Your task to perform on an android device: Open calendar and show me the third week of next month Image 0: 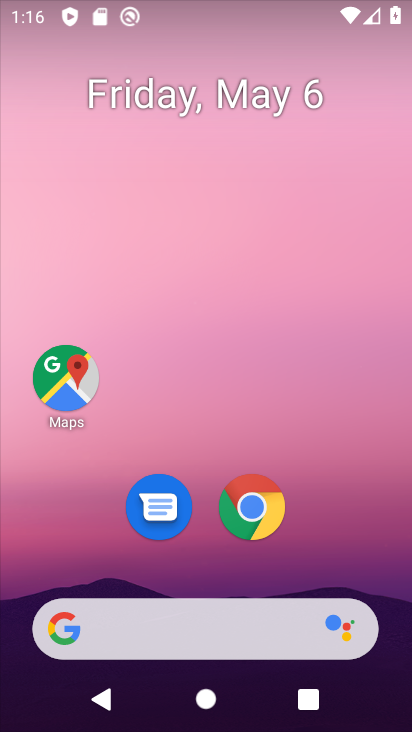
Step 0: drag from (102, 593) to (291, 39)
Your task to perform on an android device: Open calendar and show me the third week of next month Image 1: 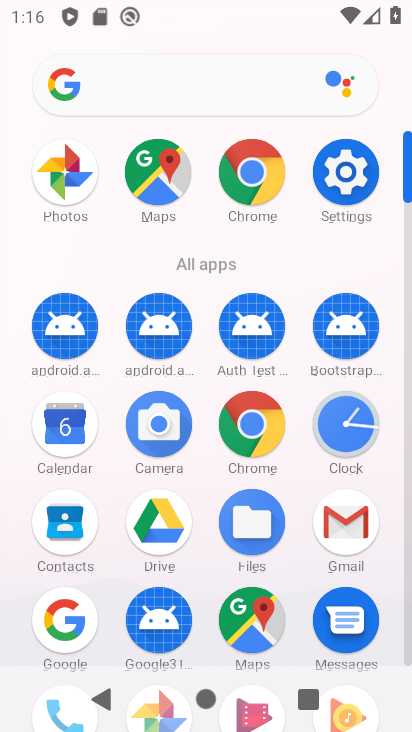
Step 1: click (57, 442)
Your task to perform on an android device: Open calendar and show me the third week of next month Image 2: 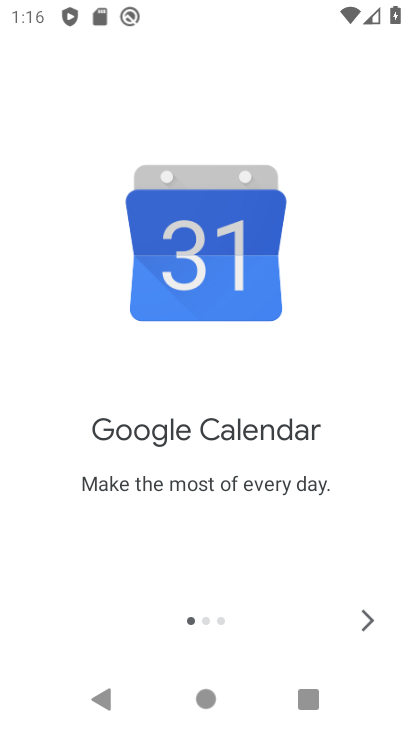
Step 2: click (394, 629)
Your task to perform on an android device: Open calendar and show me the third week of next month Image 3: 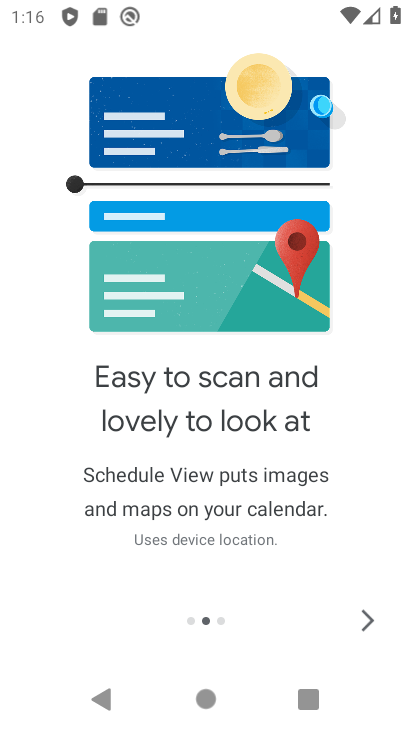
Step 3: click (388, 628)
Your task to perform on an android device: Open calendar and show me the third week of next month Image 4: 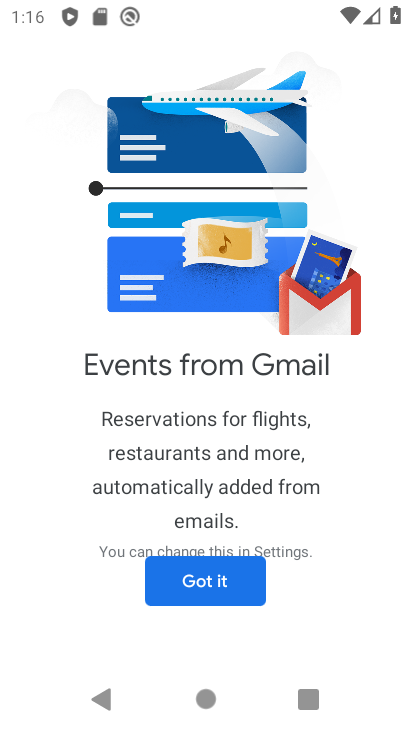
Step 4: drag from (372, 673) to (388, 628)
Your task to perform on an android device: Open calendar and show me the third week of next month Image 5: 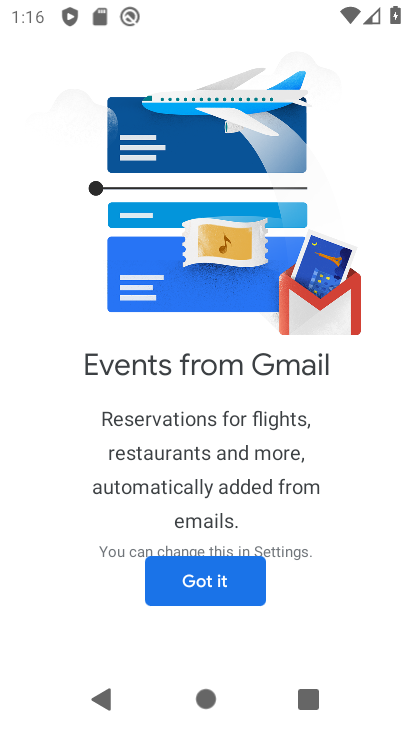
Step 5: click (237, 582)
Your task to perform on an android device: Open calendar and show me the third week of next month Image 6: 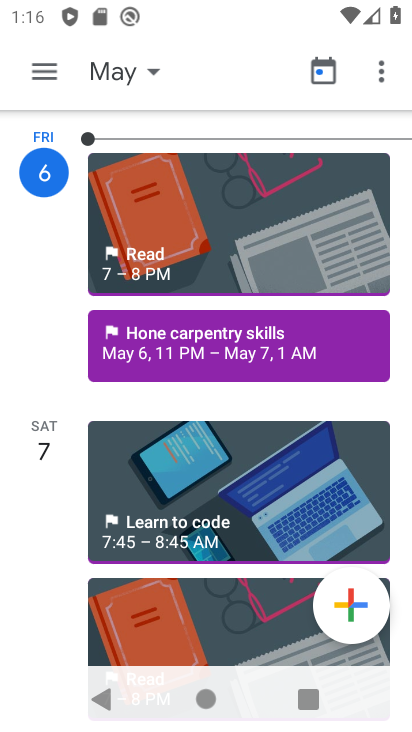
Step 6: click (128, 81)
Your task to perform on an android device: Open calendar and show me the third week of next month Image 7: 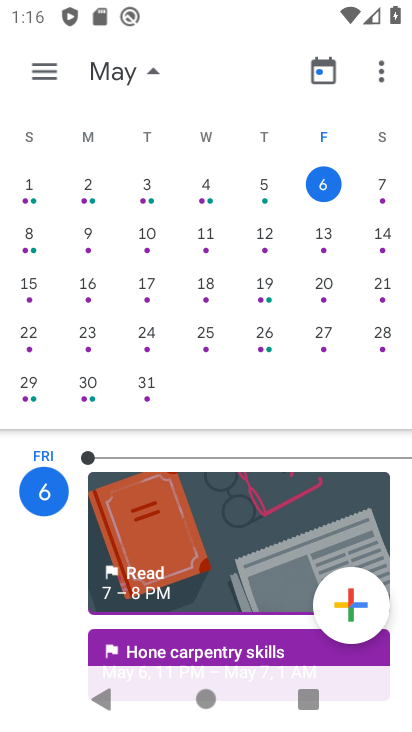
Step 7: drag from (345, 330) to (12, 321)
Your task to perform on an android device: Open calendar and show me the third week of next month Image 8: 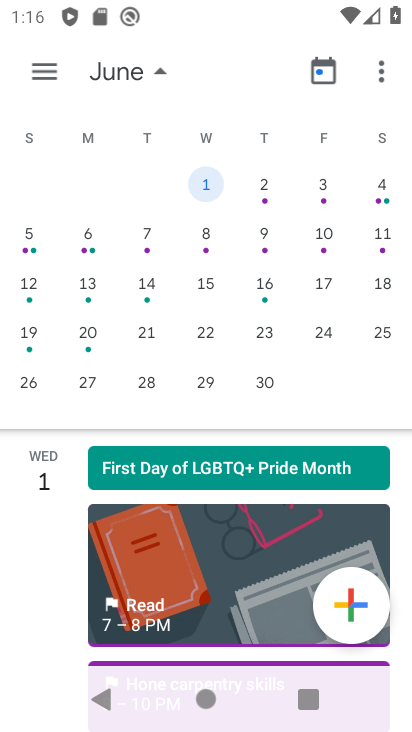
Step 8: click (23, 331)
Your task to perform on an android device: Open calendar and show me the third week of next month Image 9: 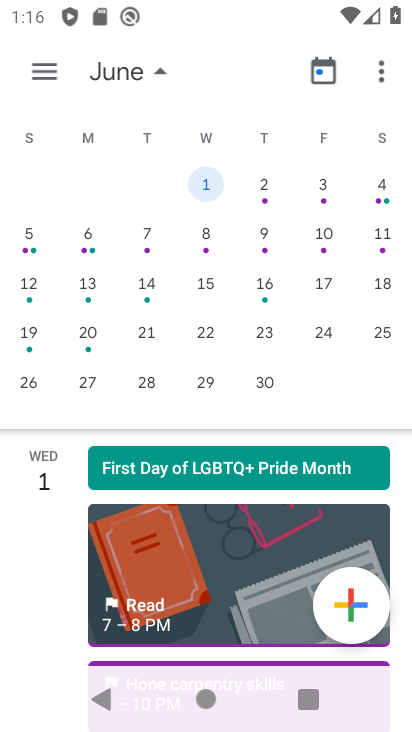
Step 9: click (33, 332)
Your task to perform on an android device: Open calendar and show me the third week of next month Image 10: 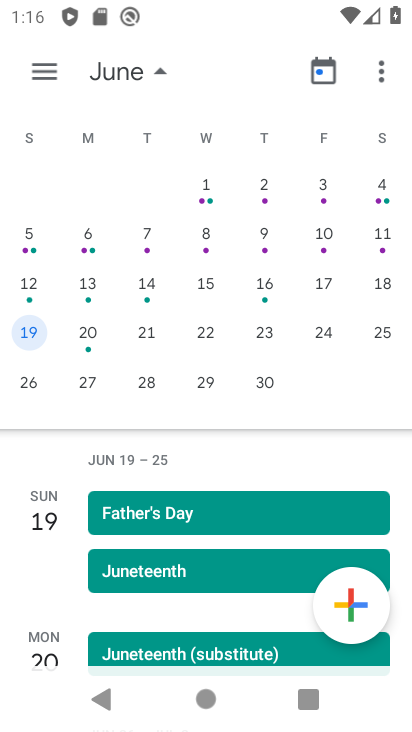
Step 10: click (43, 70)
Your task to perform on an android device: Open calendar and show me the third week of next month Image 11: 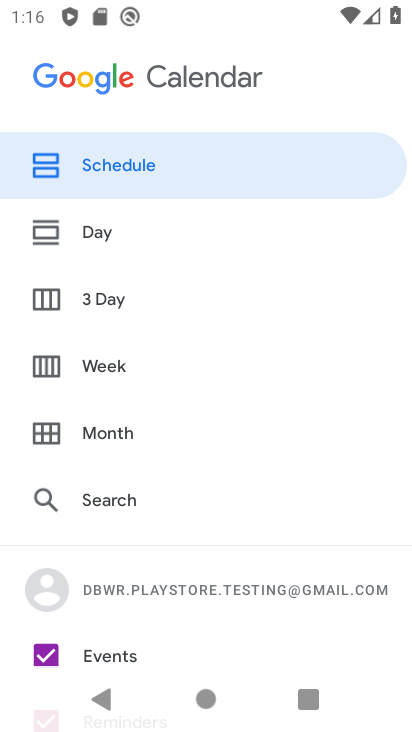
Step 11: click (160, 376)
Your task to perform on an android device: Open calendar and show me the third week of next month Image 12: 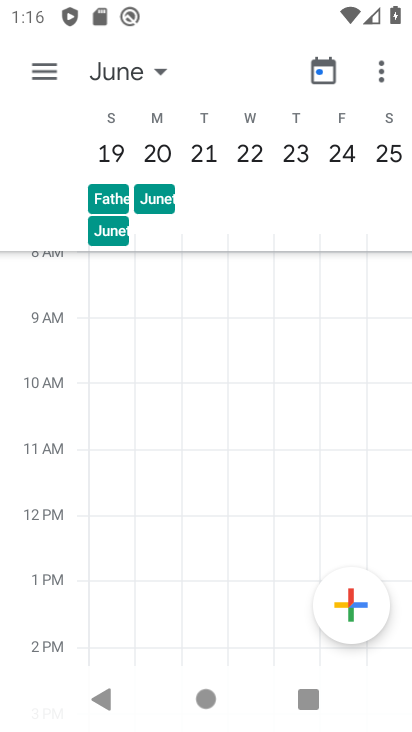
Step 12: task complete